Your task to perform on an android device: check battery use Image 0: 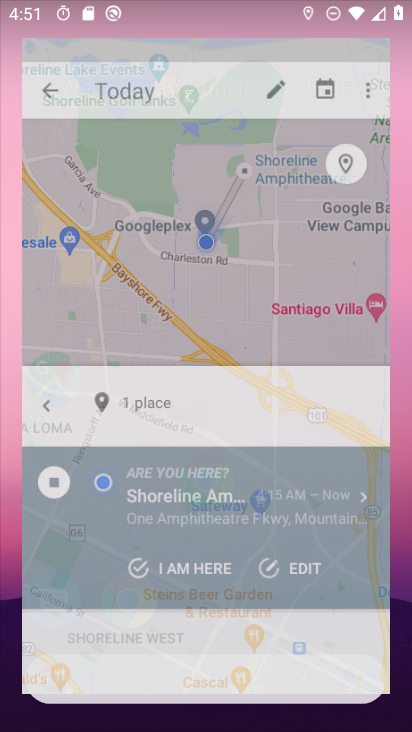
Step 0: drag from (224, 529) to (141, 153)
Your task to perform on an android device: check battery use Image 1: 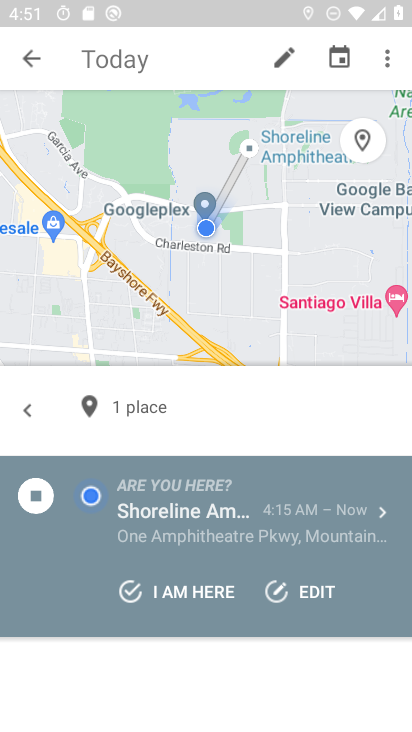
Step 1: press back button
Your task to perform on an android device: check battery use Image 2: 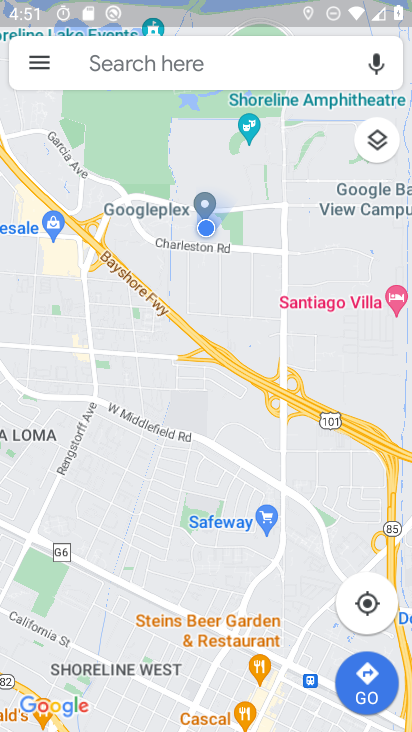
Step 2: press home button
Your task to perform on an android device: check battery use Image 3: 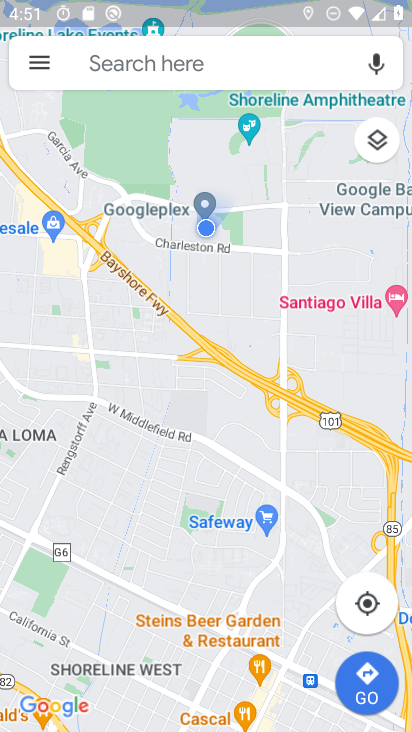
Step 3: press home button
Your task to perform on an android device: check battery use Image 4: 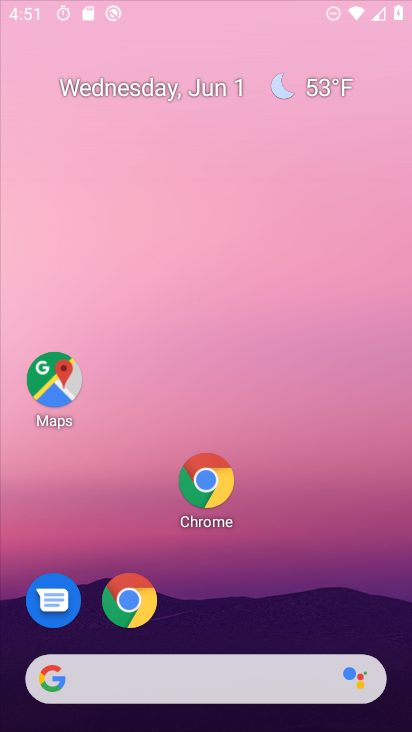
Step 4: press home button
Your task to perform on an android device: check battery use Image 5: 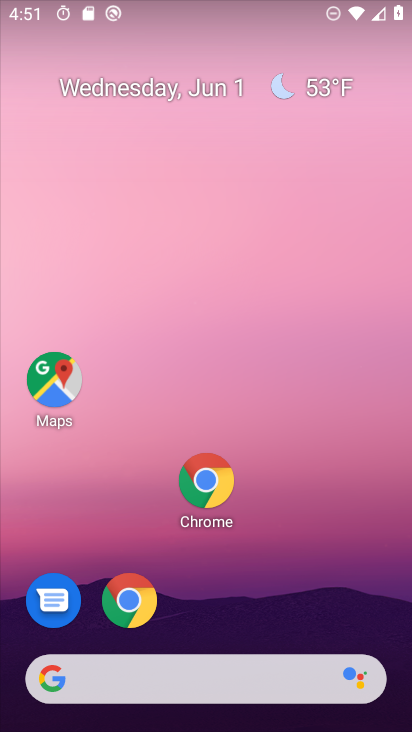
Step 5: drag from (221, 579) to (124, 102)
Your task to perform on an android device: check battery use Image 6: 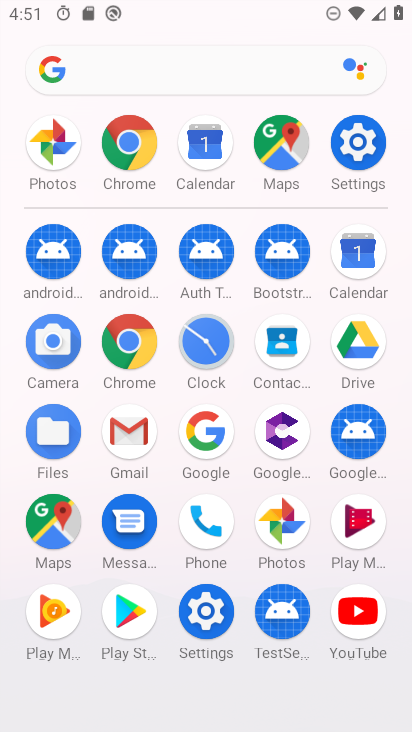
Step 6: click (206, 591)
Your task to perform on an android device: check battery use Image 7: 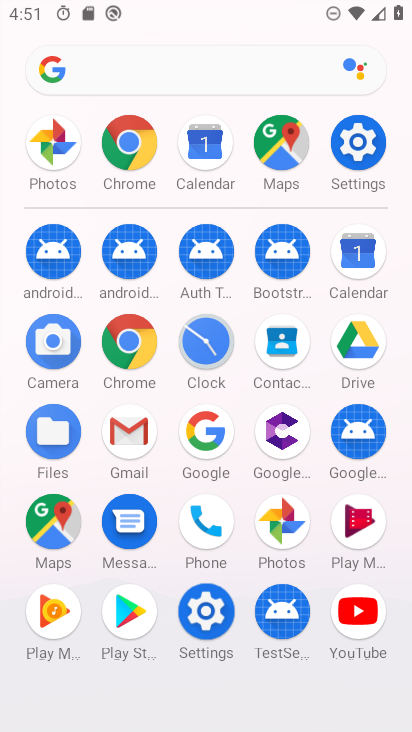
Step 7: click (206, 594)
Your task to perform on an android device: check battery use Image 8: 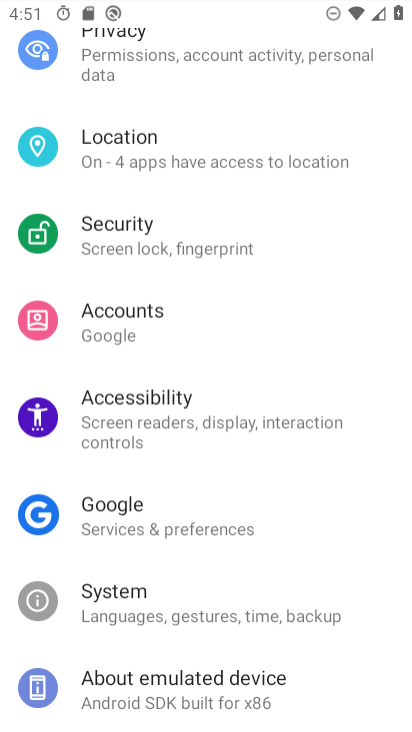
Step 8: click (197, 608)
Your task to perform on an android device: check battery use Image 9: 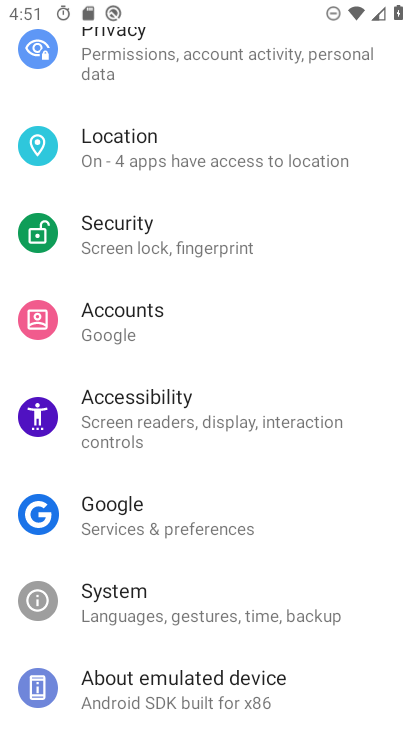
Step 9: click (194, 608)
Your task to perform on an android device: check battery use Image 10: 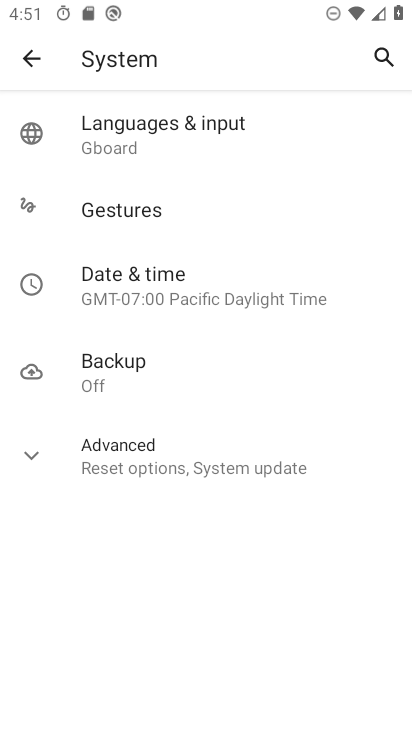
Step 10: click (41, 64)
Your task to perform on an android device: check battery use Image 11: 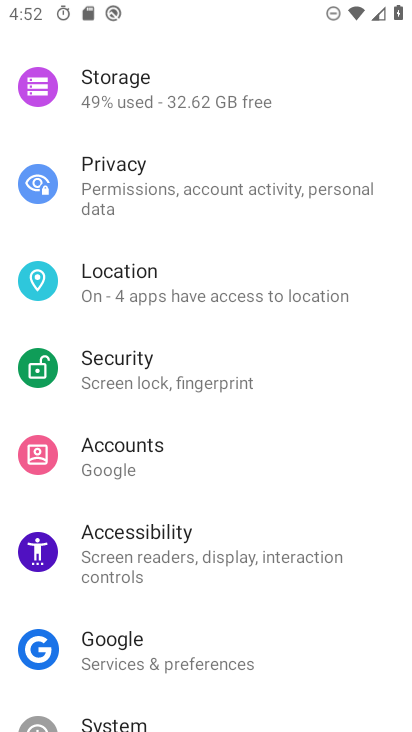
Step 11: drag from (138, 379) to (86, 123)
Your task to perform on an android device: check battery use Image 12: 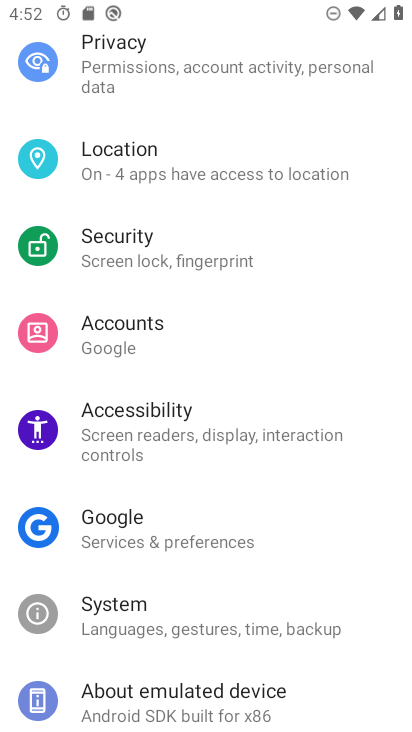
Step 12: drag from (188, 323) to (205, 111)
Your task to perform on an android device: check battery use Image 13: 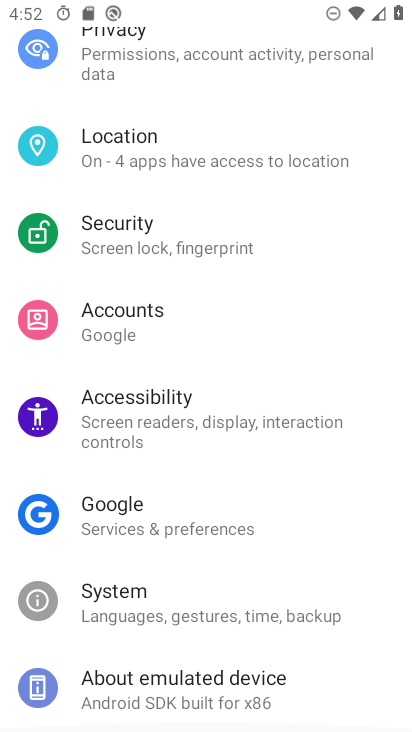
Step 13: drag from (226, 417) to (196, 73)
Your task to perform on an android device: check battery use Image 14: 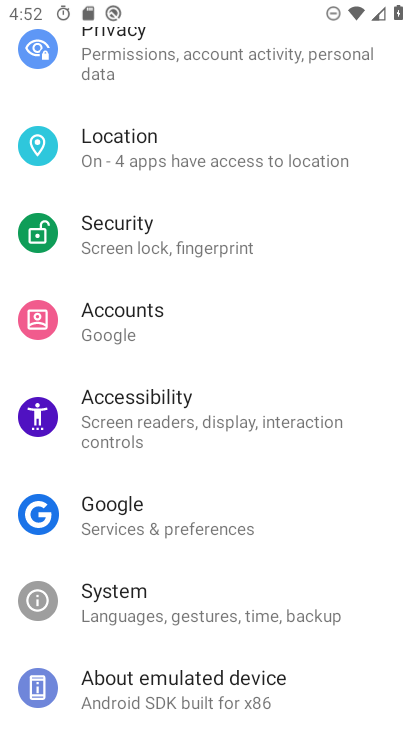
Step 14: drag from (175, 477) to (166, 216)
Your task to perform on an android device: check battery use Image 15: 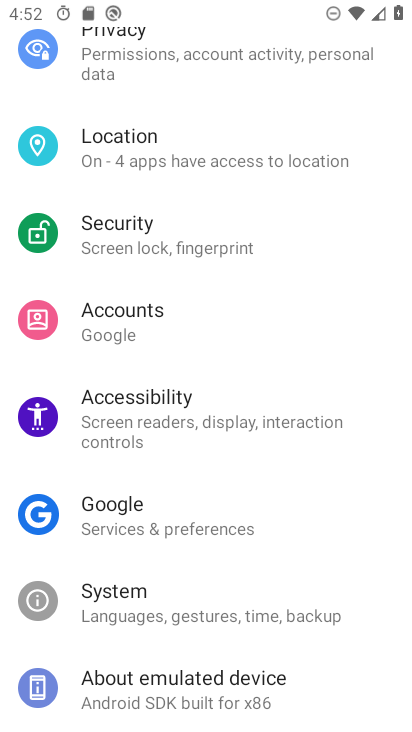
Step 15: drag from (123, 198) to (140, 592)
Your task to perform on an android device: check battery use Image 16: 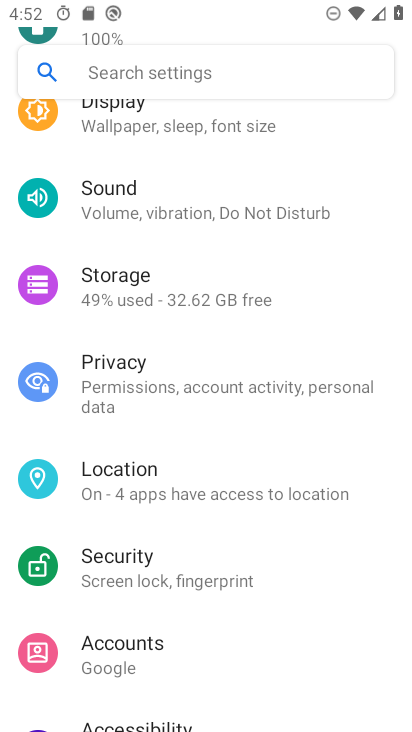
Step 16: drag from (91, 297) to (221, 655)
Your task to perform on an android device: check battery use Image 17: 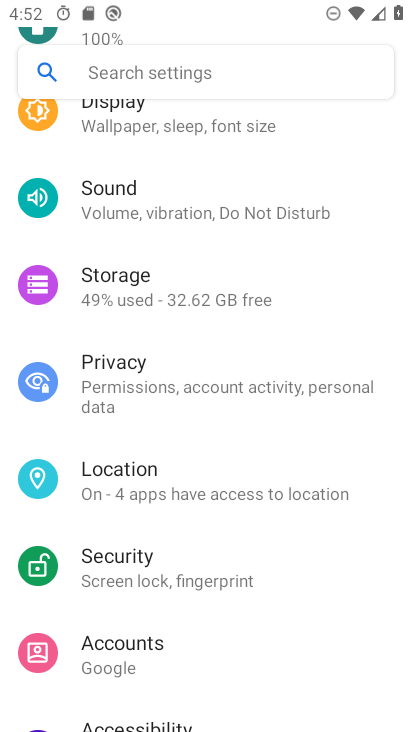
Step 17: drag from (267, 289) to (281, 636)
Your task to perform on an android device: check battery use Image 18: 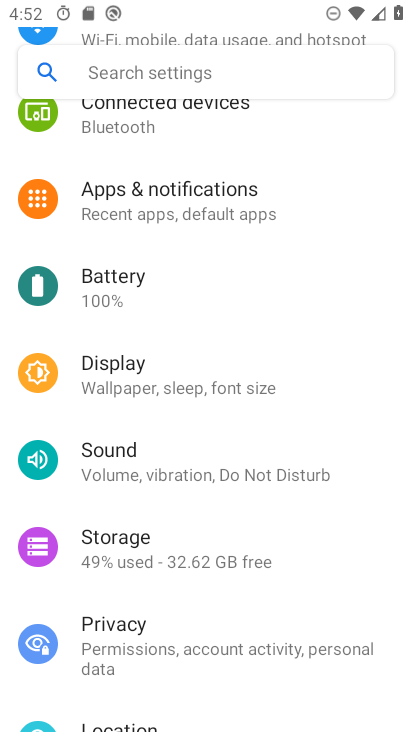
Step 18: drag from (89, 274) to (173, 545)
Your task to perform on an android device: check battery use Image 19: 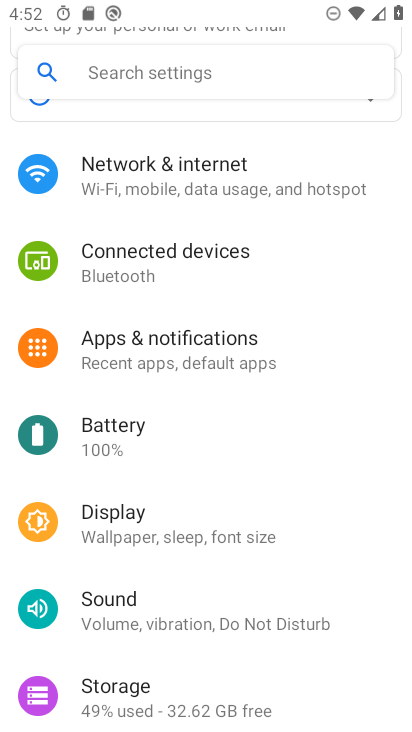
Step 19: drag from (207, 502) to (252, 550)
Your task to perform on an android device: check battery use Image 20: 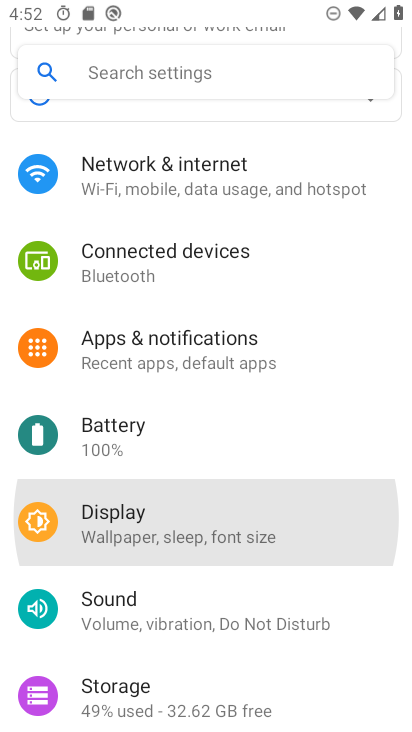
Step 20: drag from (203, 213) to (212, 480)
Your task to perform on an android device: check battery use Image 21: 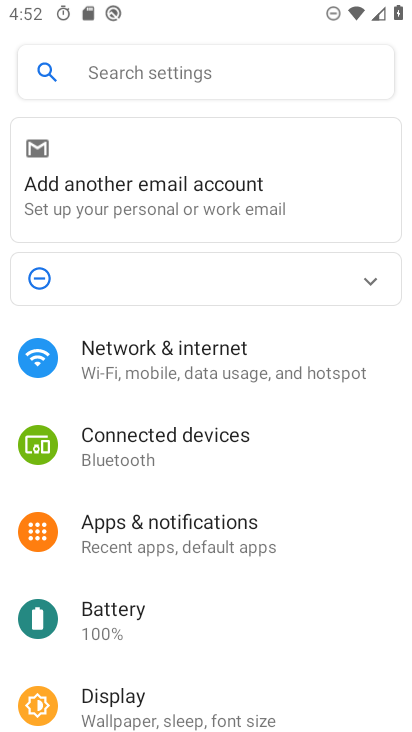
Step 21: drag from (122, 532) to (87, 304)
Your task to perform on an android device: check battery use Image 22: 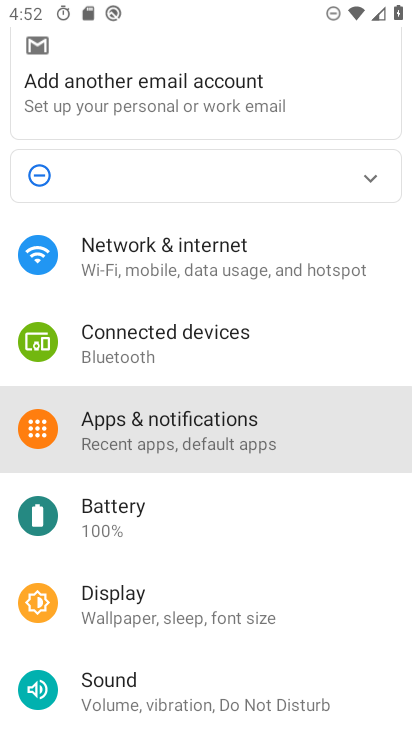
Step 22: drag from (271, 591) to (247, 284)
Your task to perform on an android device: check battery use Image 23: 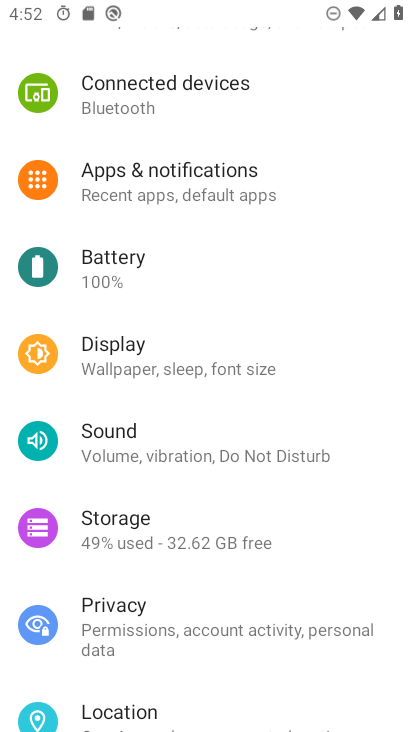
Step 23: click (106, 284)
Your task to perform on an android device: check battery use Image 24: 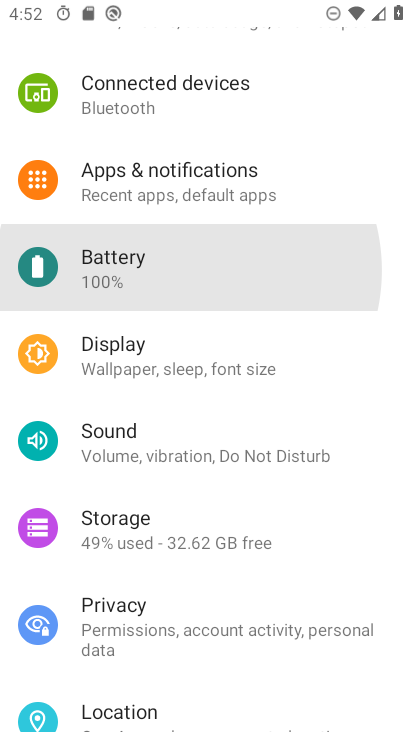
Step 24: click (105, 283)
Your task to perform on an android device: check battery use Image 25: 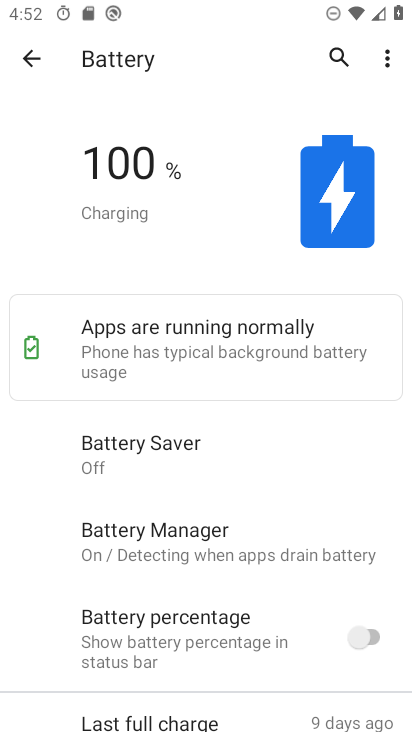
Step 25: task complete